Your task to perform on an android device: turn notification dots off Image 0: 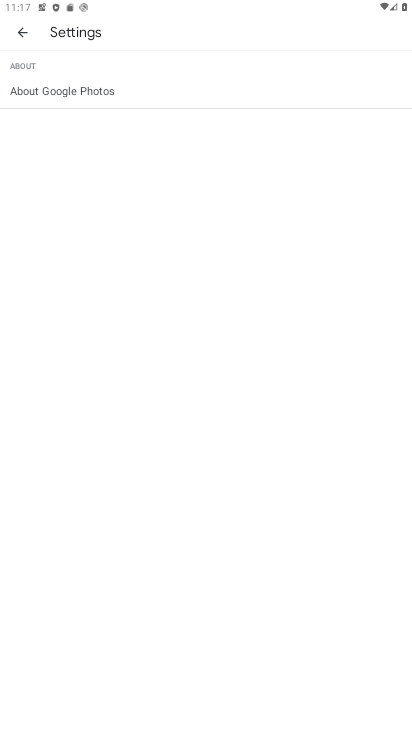
Step 0: press home button
Your task to perform on an android device: turn notification dots off Image 1: 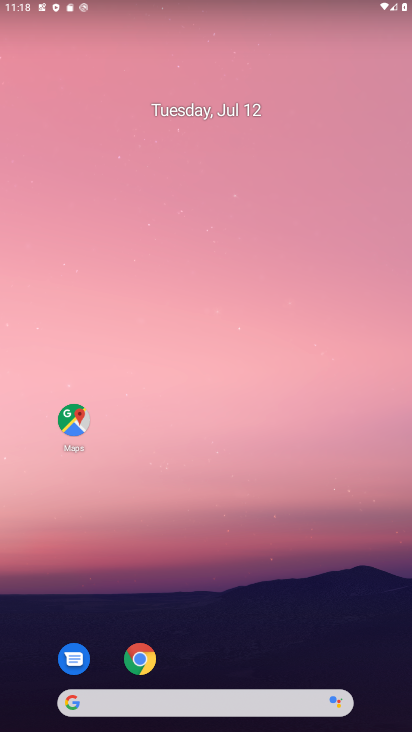
Step 1: drag from (169, 364) to (198, 30)
Your task to perform on an android device: turn notification dots off Image 2: 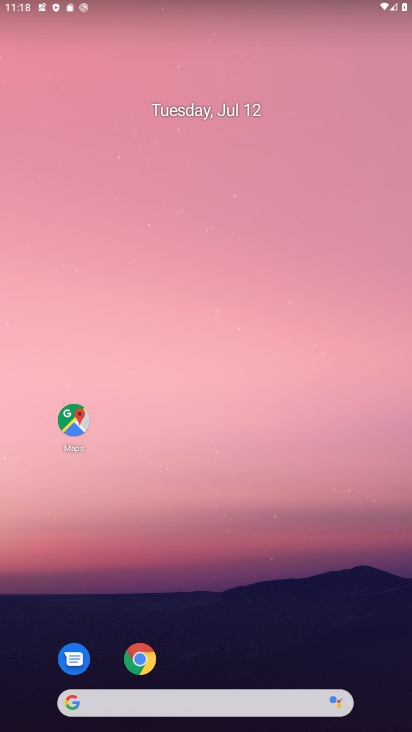
Step 2: drag from (224, 590) to (249, 41)
Your task to perform on an android device: turn notification dots off Image 3: 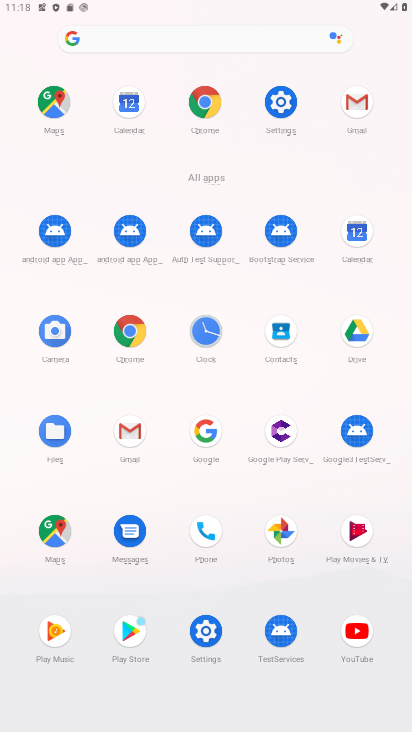
Step 3: click (290, 99)
Your task to perform on an android device: turn notification dots off Image 4: 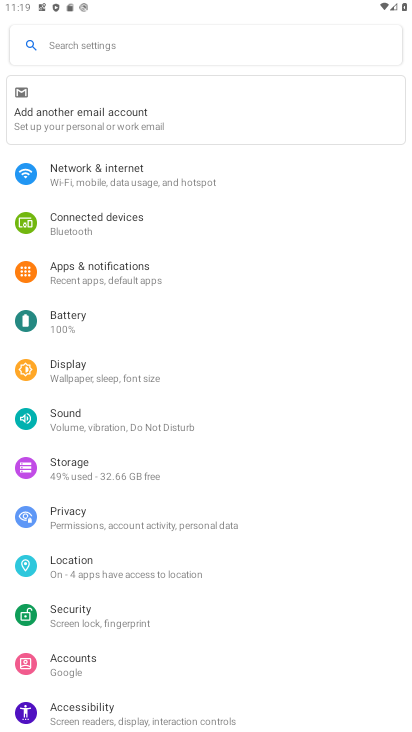
Step 4: click (93, 259)
Your task to perform on an android device: turn notification dots off Image 5: 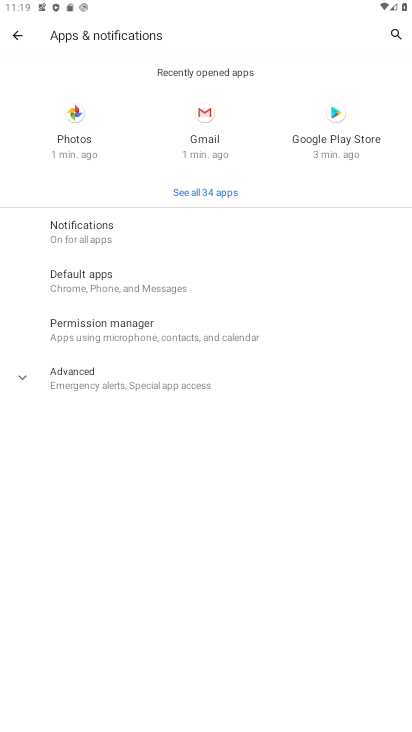
Step 5: click (117, 231)
Your task to perform on an android device: turn notification dots off Image 6: 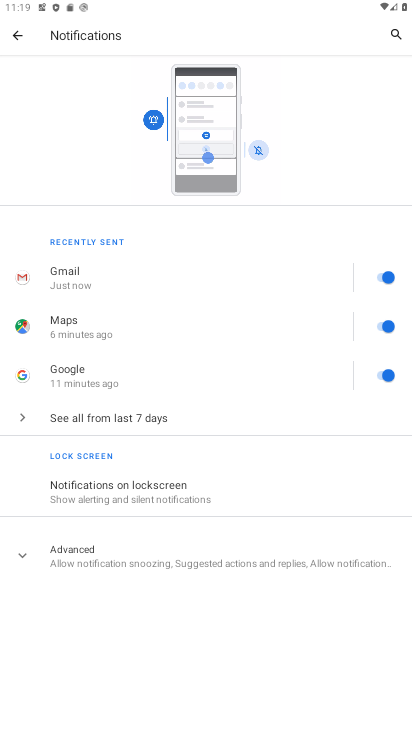
Step 6: click (119, 556)
Your task to perform on an android device: turn notification dots off Image 7: 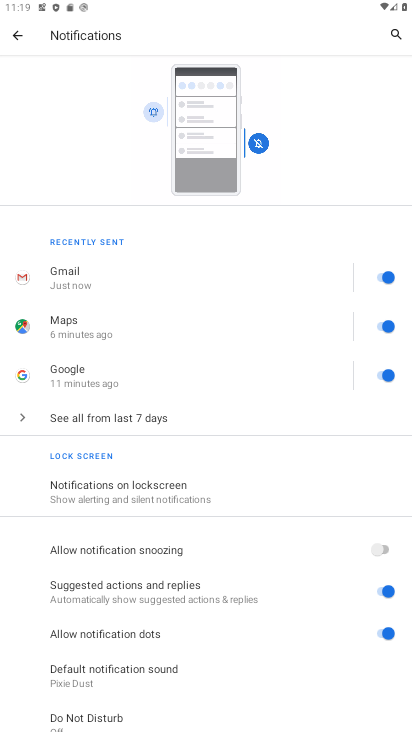
Step 7: click (387, 630)
Your task to perform on an android device: turn notification dots off Image 8: 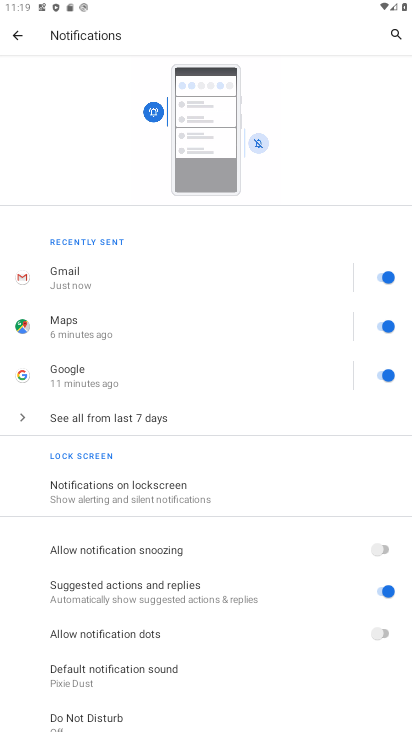
Step 8: task complete